Your task to perform on an android device: Go to Google maps Image 0: 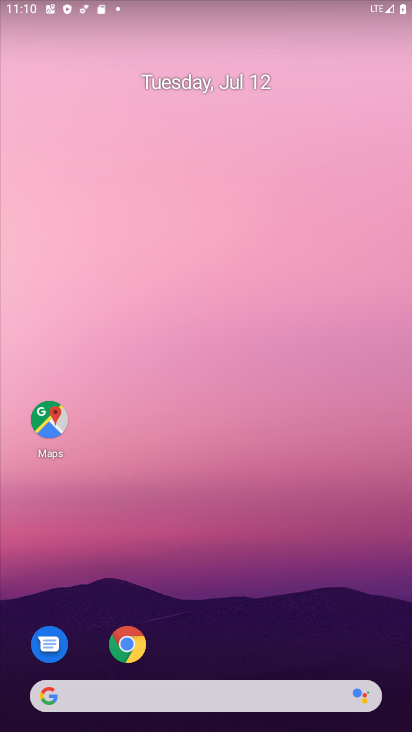
Step 0: click (50, 421)
Your task to perform on an android device: Go to Google maps Image 1: 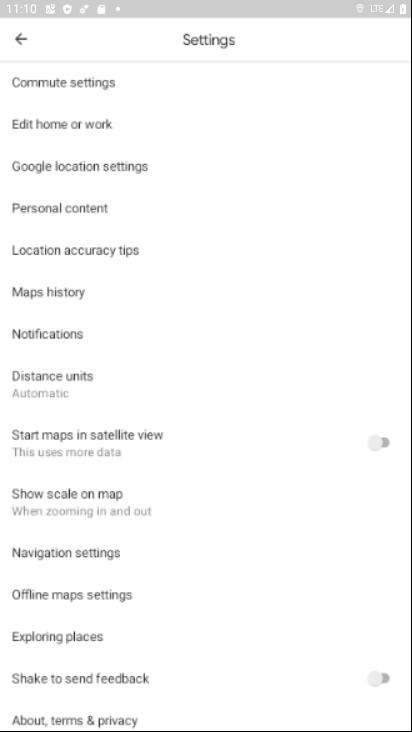
Step 1: click (26, 43)
Your task to perform on an android device: Go to Google maps Image 2: 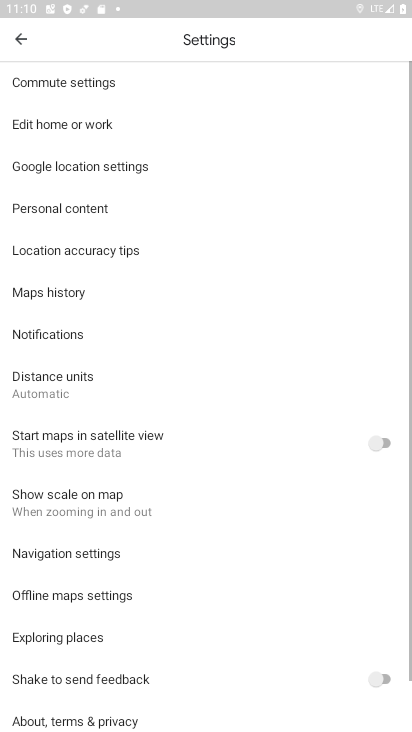
Step 2: click (18, 38)
Your task to perform on an android device: Go to Google maps Image 3: 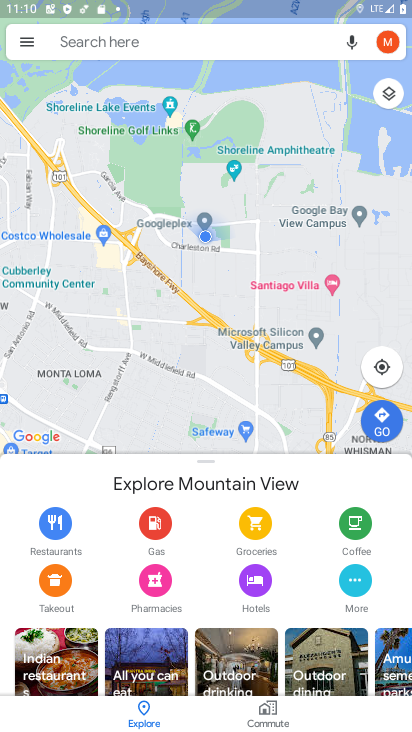
Step 3: task complete